Your task to perform on an android device: turn on javascript in the chrome app Image 0: 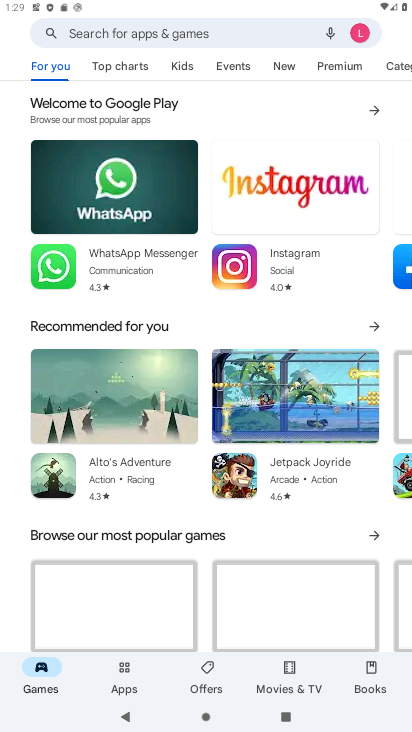
Step 0: press home button
Your task to perform on an android device: turn on javascript in the chrome app Image 1: 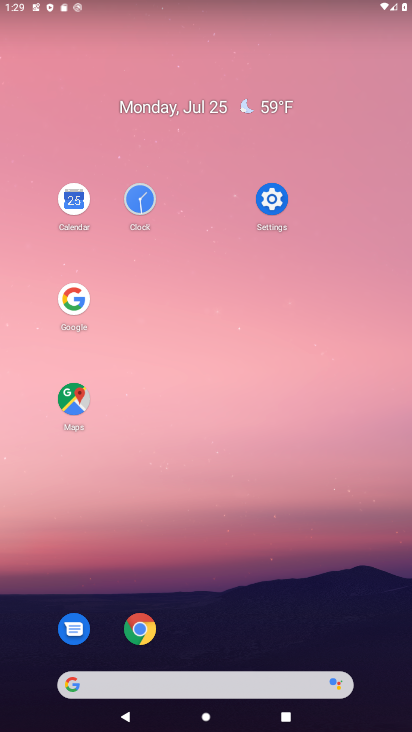
Step 1: click (138, 633)
Your task to perform on an android device: turn on javascript in the chrome app Image 2: 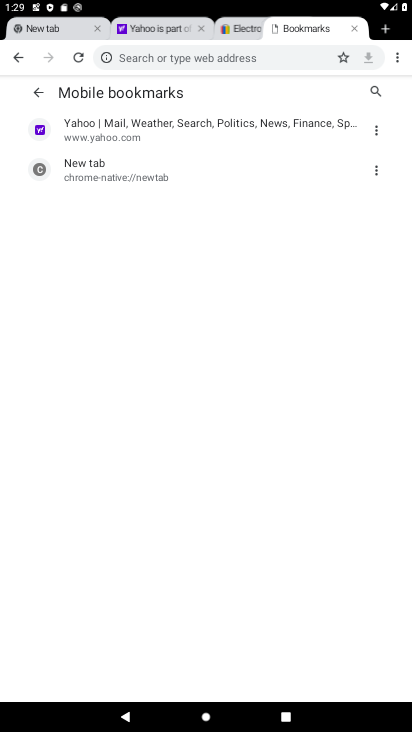
Step 2: click (395, 58)
Your task to perform on an android device: turn on javascript in the chrome app Image 3: 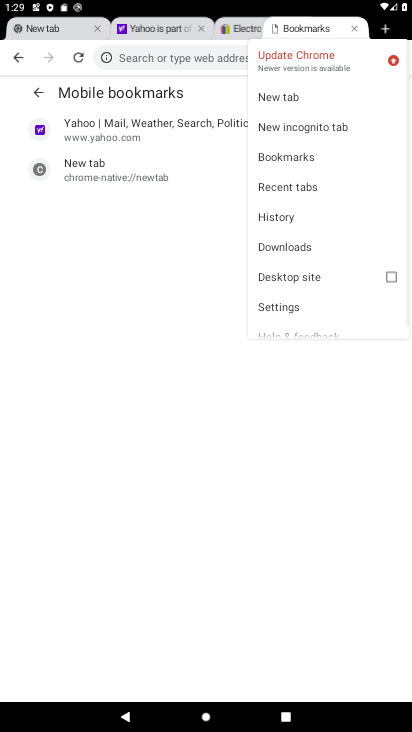
Step 3: click (298, 309)
Your task to perform on an android device: turn on javascript in the chrome app Image 4: 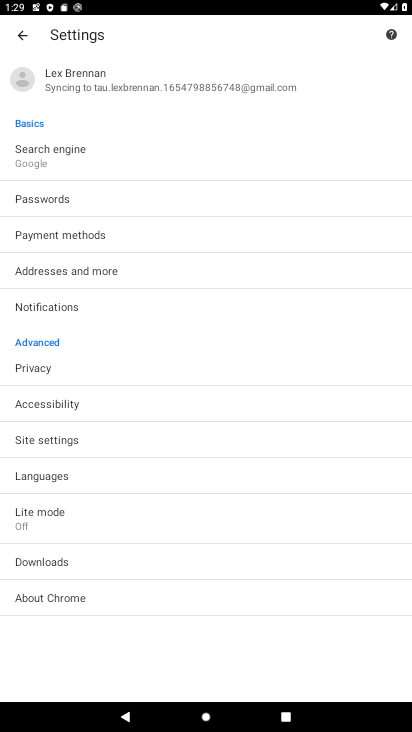
Step 4: click (77, 446)
Your task to perform on an android device: turn on javascript in the chrome app Image 5: 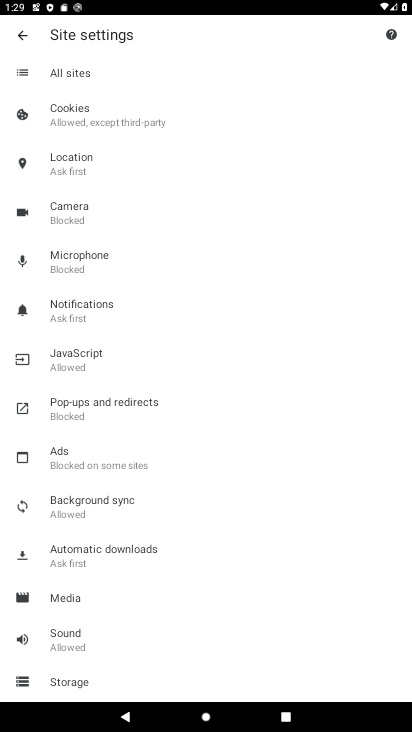
Step 5: click (134, 373)
Your task to perform on an android device: turn on javascript in the chrome app Image 6: 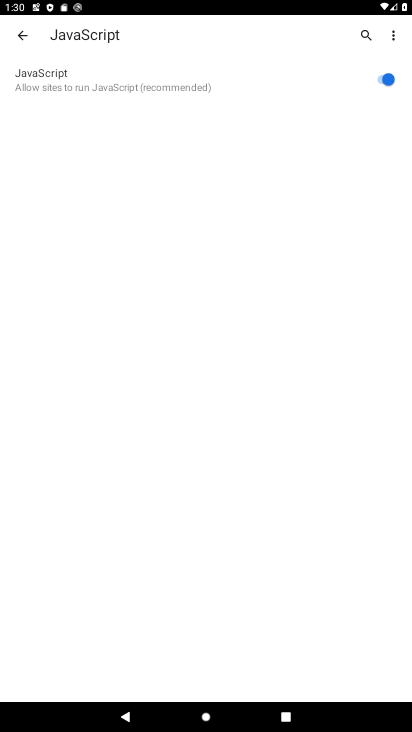
Step 6: task complete